Your task to perform on an android device: delete the emails in spam in the gmail app Image 0: 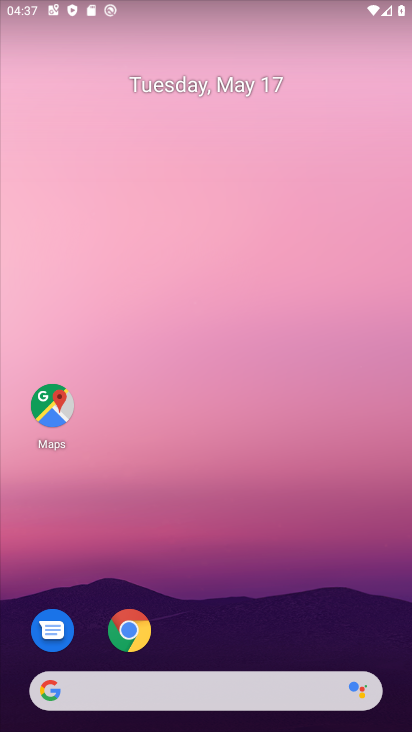
Step 0: drag from (261, 598) to (254, 54)
Your task to perform on an android device: delete the emails in spam in the gmail app Image 1: 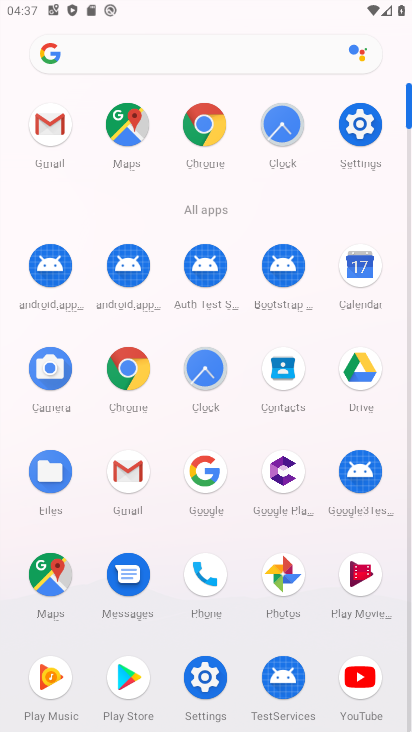
Step 1: click (133, 472)
Your task to perform on an android device: delete the emails in spam in the gmail app Image 2: 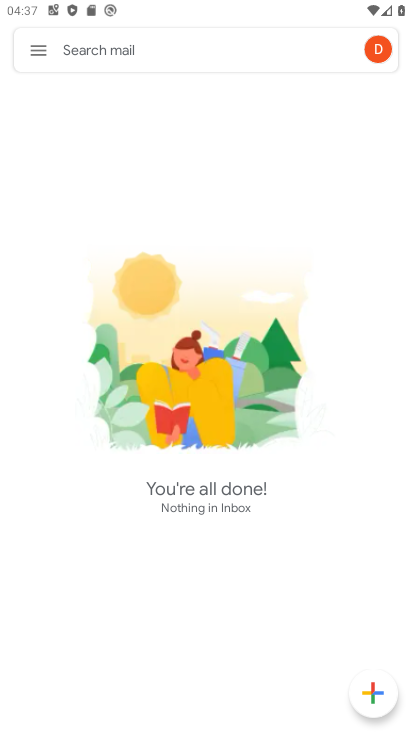
Step 2: click (42, 44)
Your task to perform on an android device: delete the emails in spam in the gmail app Image 3: 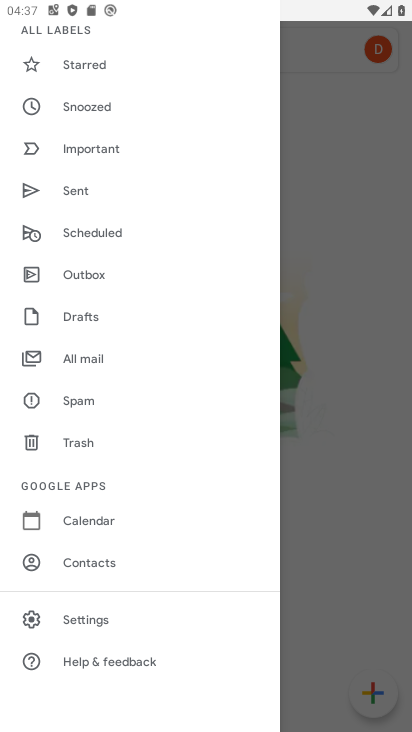
Step 3: click (89, 395)
Your task to perform on an android device: delete the emails in spam in the gmail app Image 4: 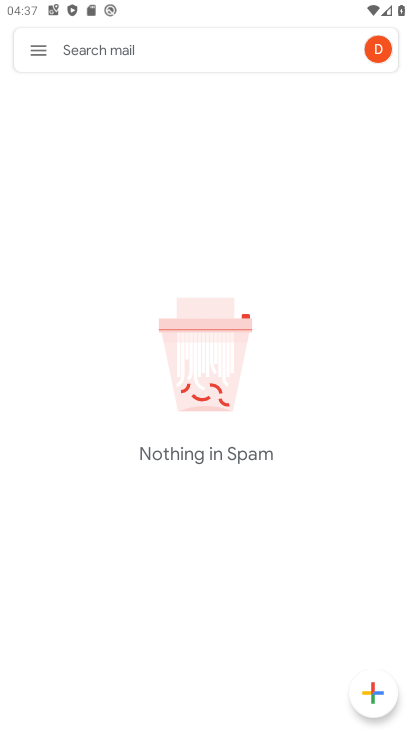
Step 4: task complete